Your task to perform on an android device: What's the weather today? Image 0: 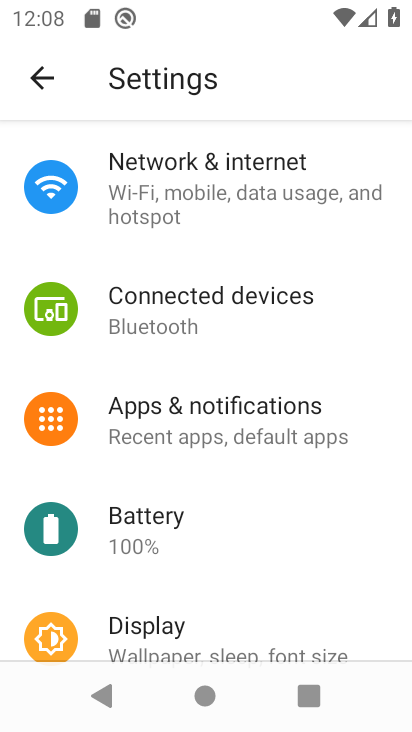
Step 0: press home button
Your task to perform on an android device: What's the weather today? Image 1: 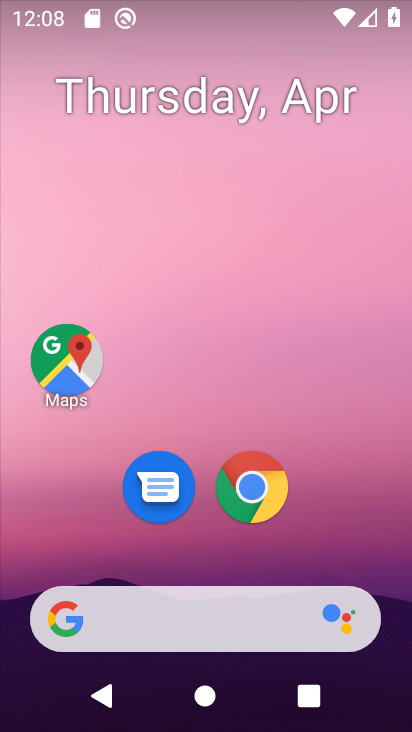
Step 1: drag from (246, 643) to (288, 203)
Your task to perform on an android device: What's the weather today? Image 2: 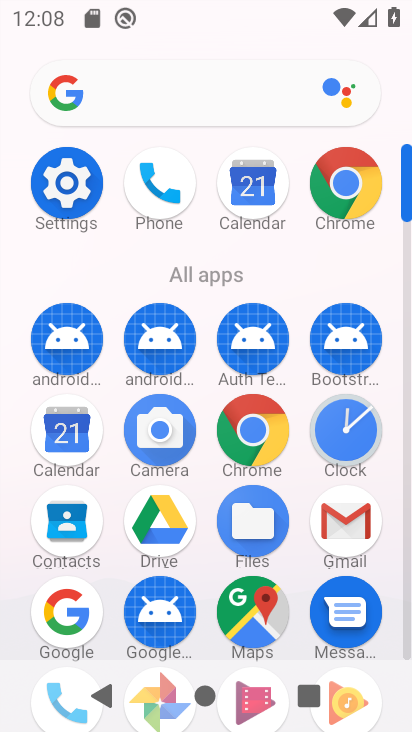
Step 2: click (137, 99)
Your task to perform on an android device: What's the weather today? Image 3: 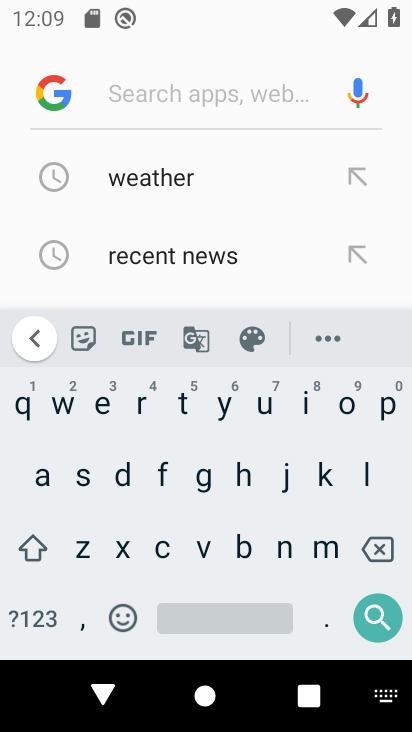
Step 3: click (176, 413)
Your task to perform on an android device: What's the weather today? Image 4: 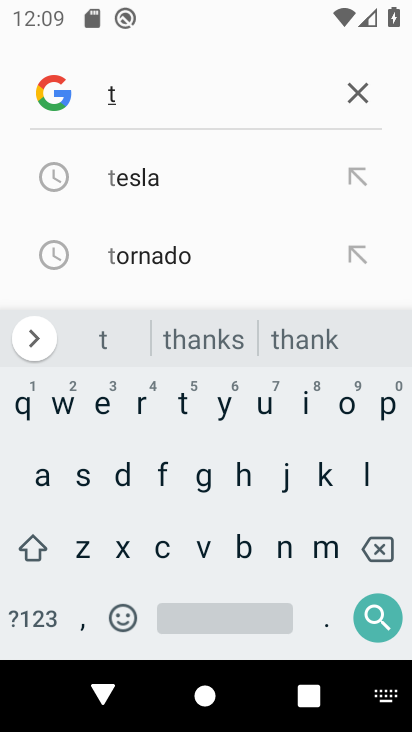
Step 4: click (377, 545)
Your task to perform on an android device: What's the weather today? Image 5: 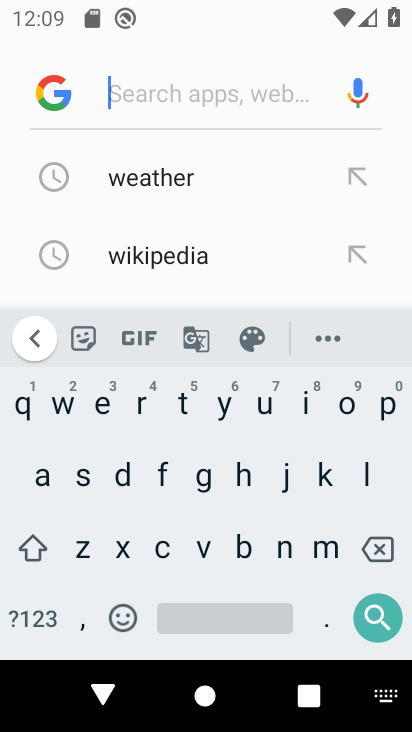
Step 5: click (209, 172)
Your task to perform on an android device: What's the weather today? Image 6: 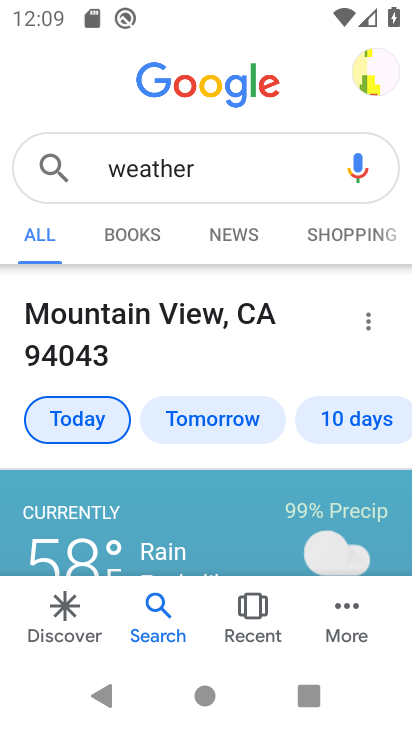
Step 6: task complete